Your task to perform on an android device: turn off priority inbox in the gmail app Image 0: 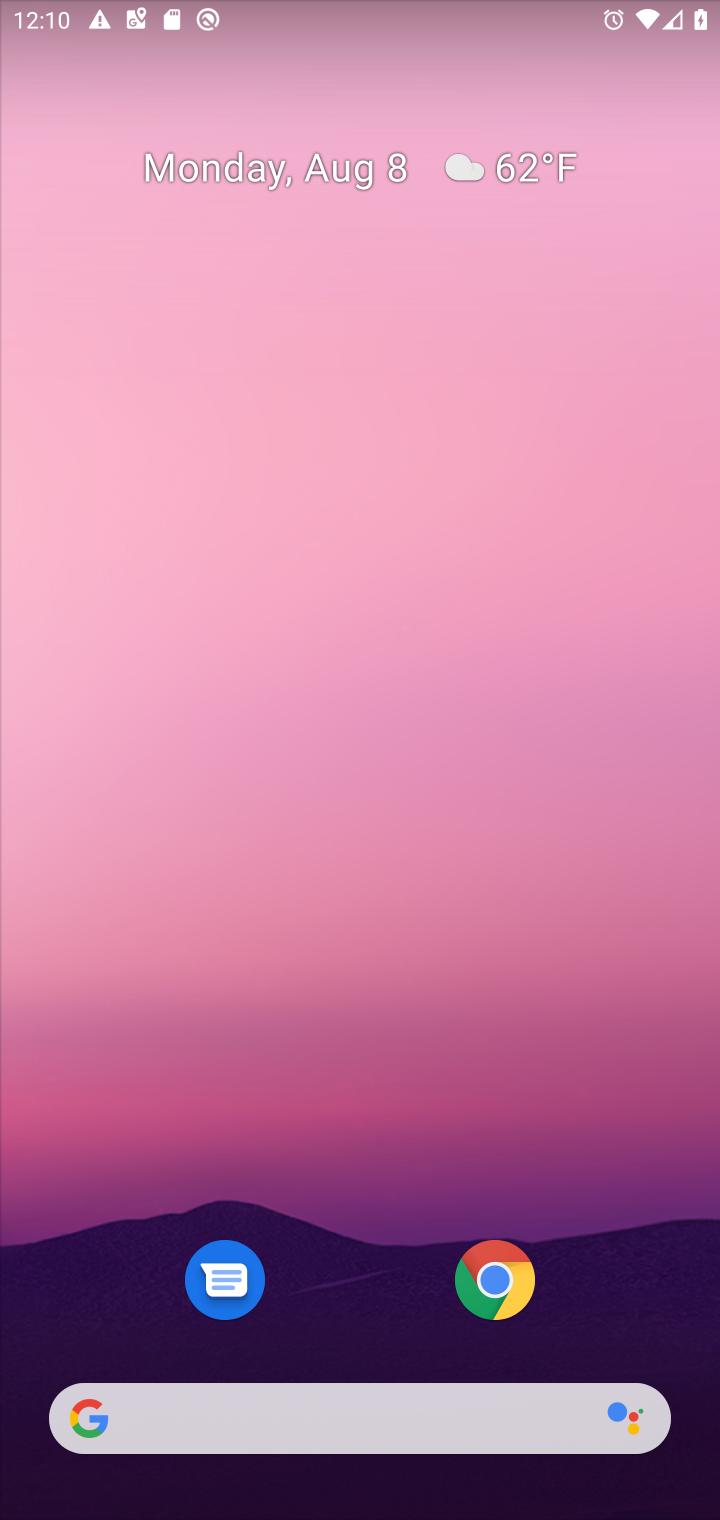
Step 0: drag from (379, 879) to (379, 195)
Your task to perform on an android device: turn off priority inbox in the gmail app Image 1: 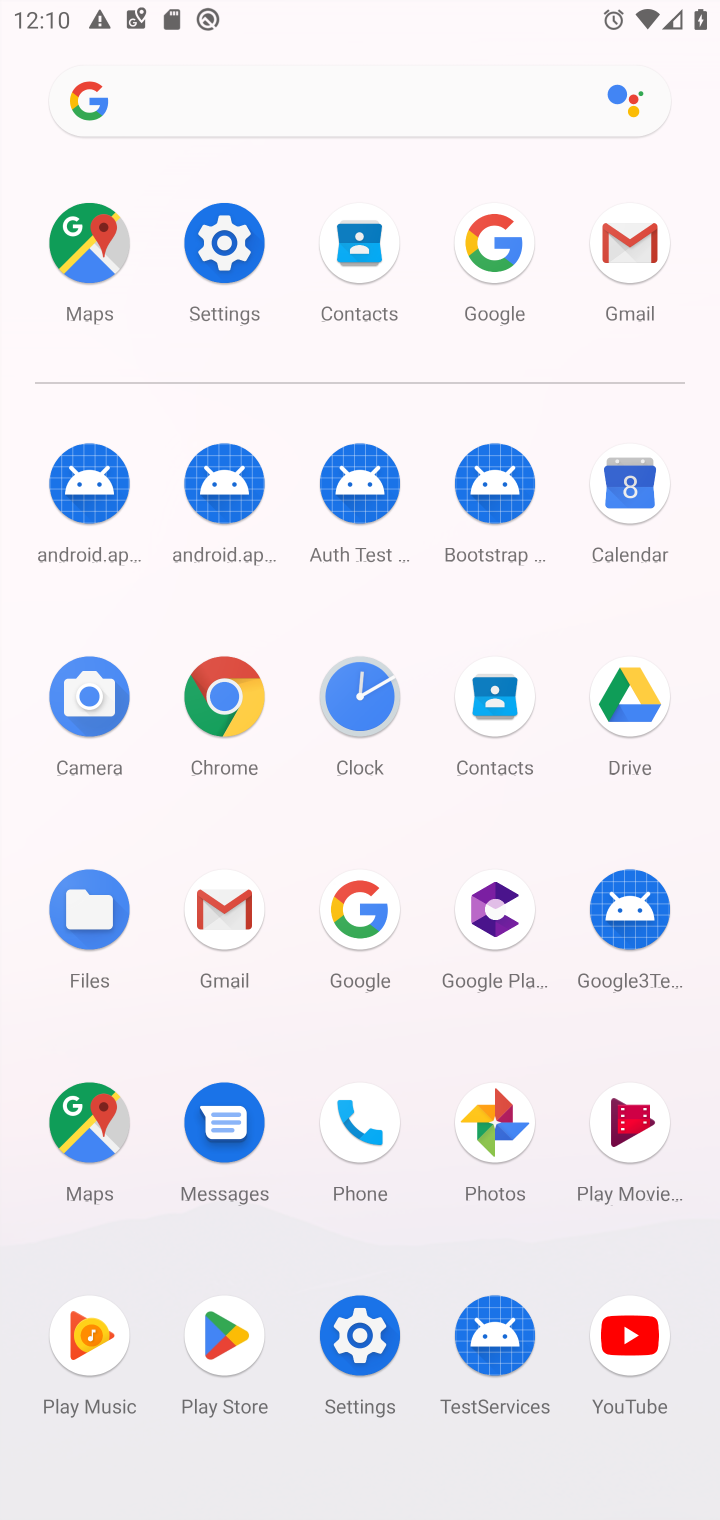
Step 1: click (233, 914)
Your task to perform on an android device: turn off priority inbox in the gmail app Image 2: 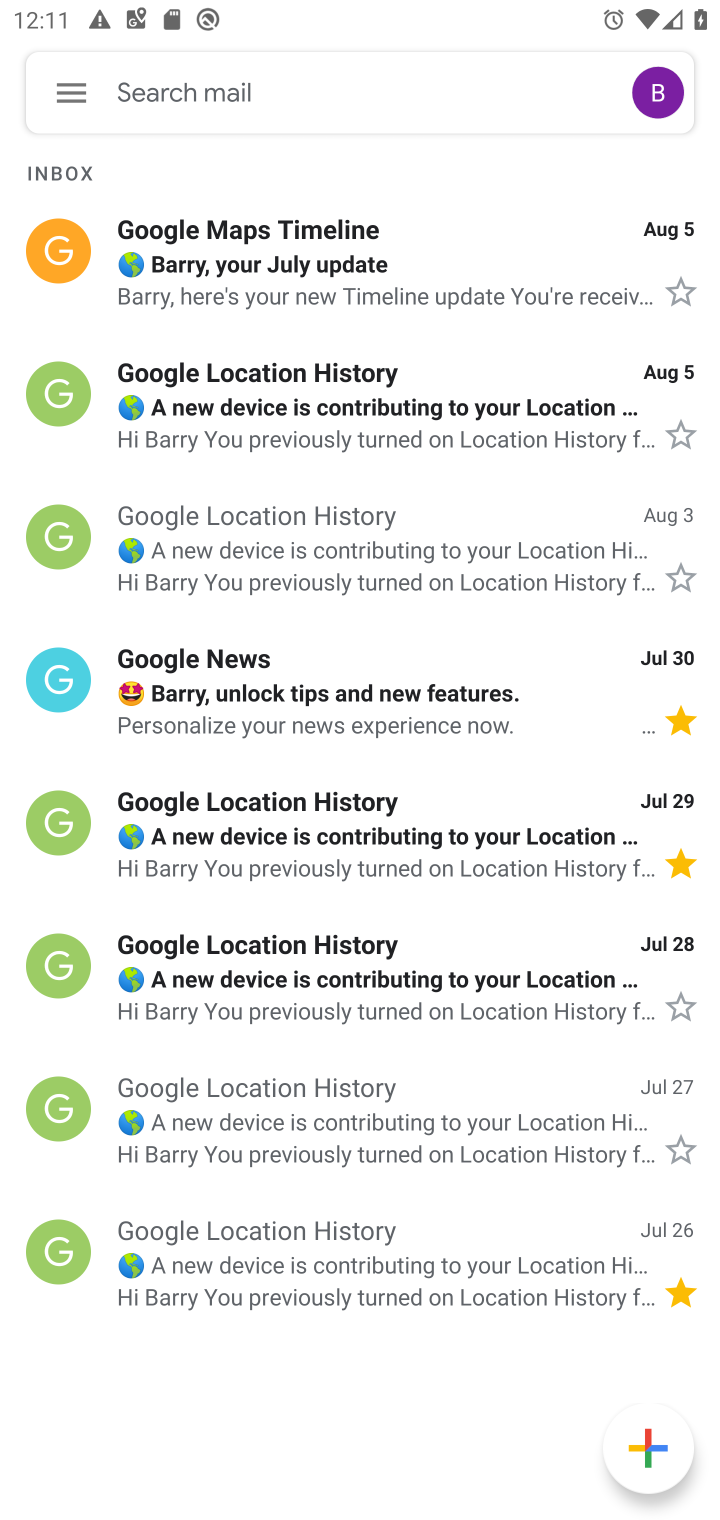
Step 2: click (74, 91)
Your task to perform on an android device: turn off priority inbox in the gmail app Image 3: 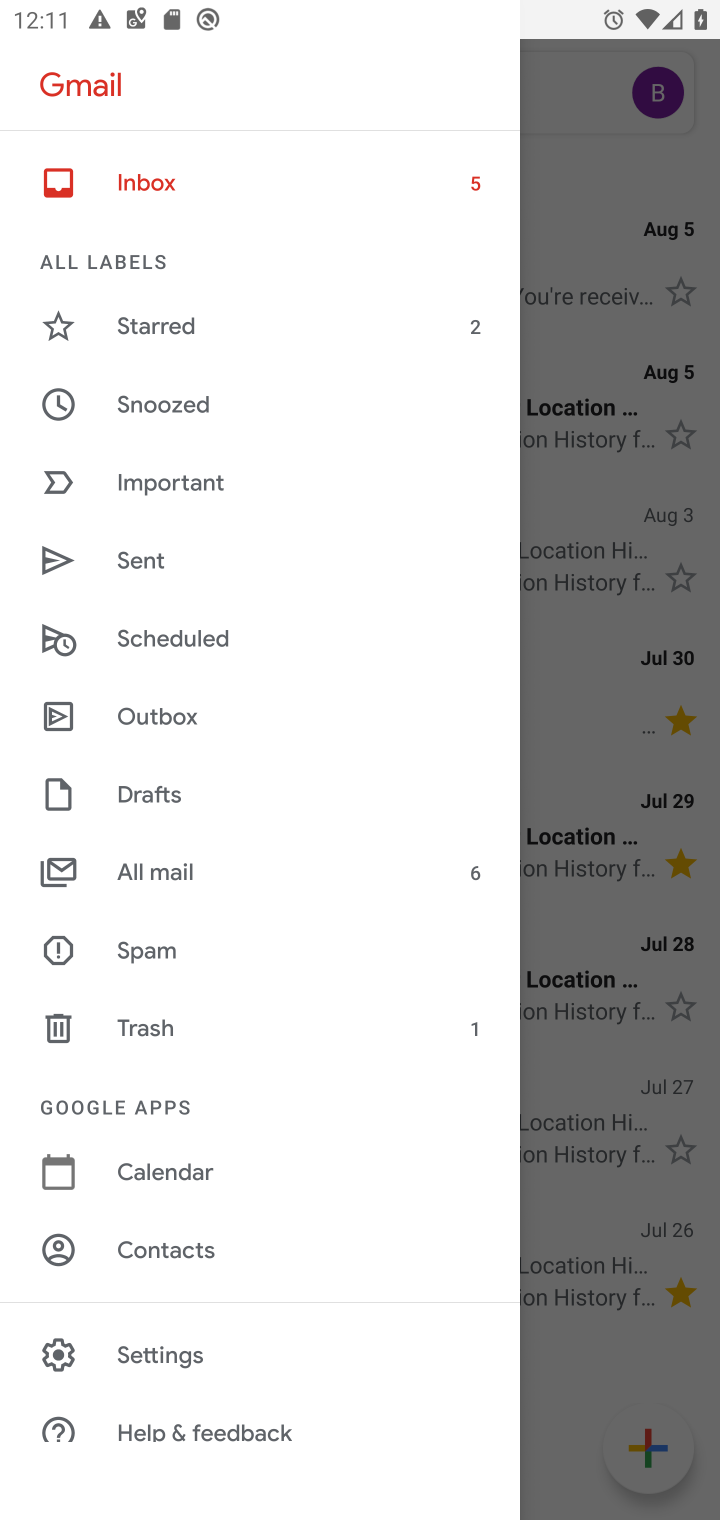
Step 3: click (160, 1350)
Your task to perform on an android device: turn off priority inbox in the gmail app Image 4: 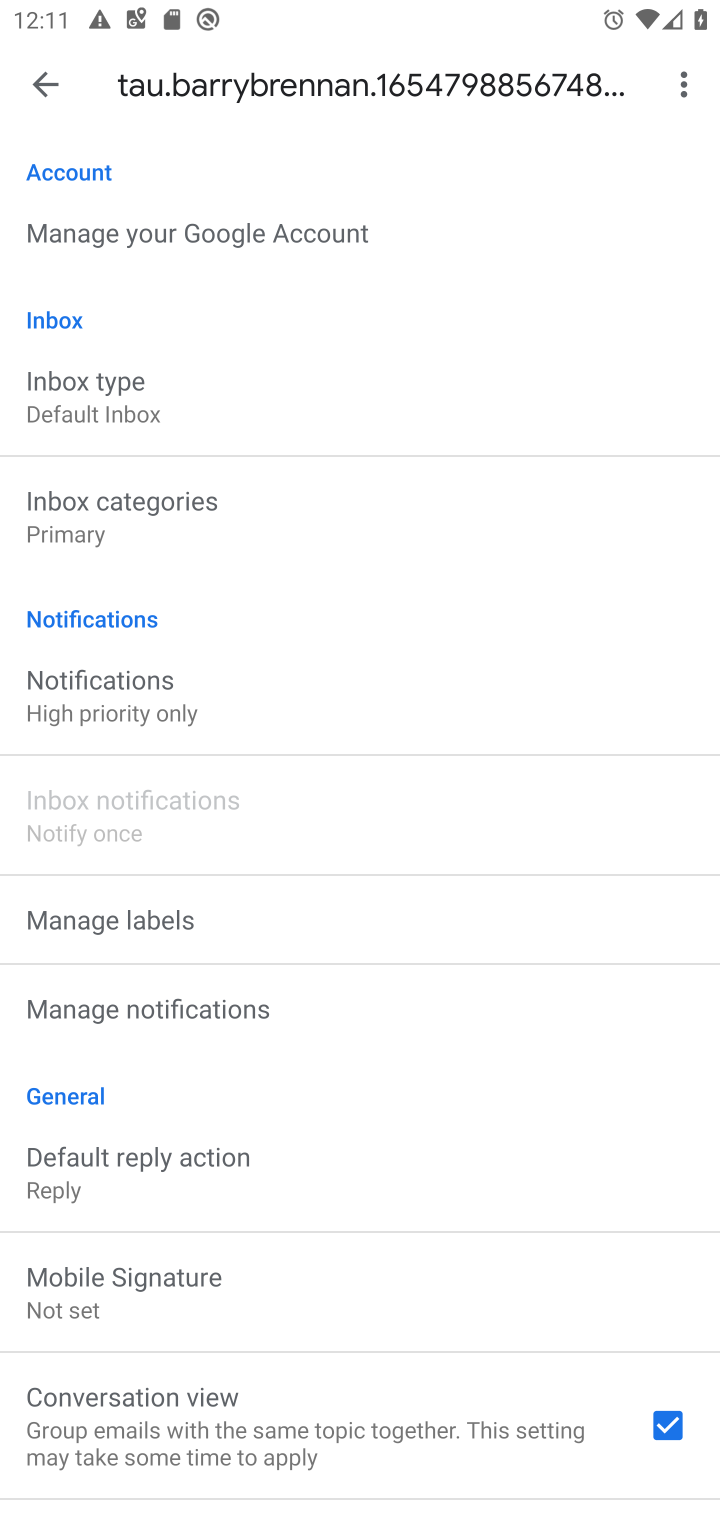
Step 4: click (91, 392)
Your task to perform on an android device: turn off priority inbox in the gmail app Image 5: 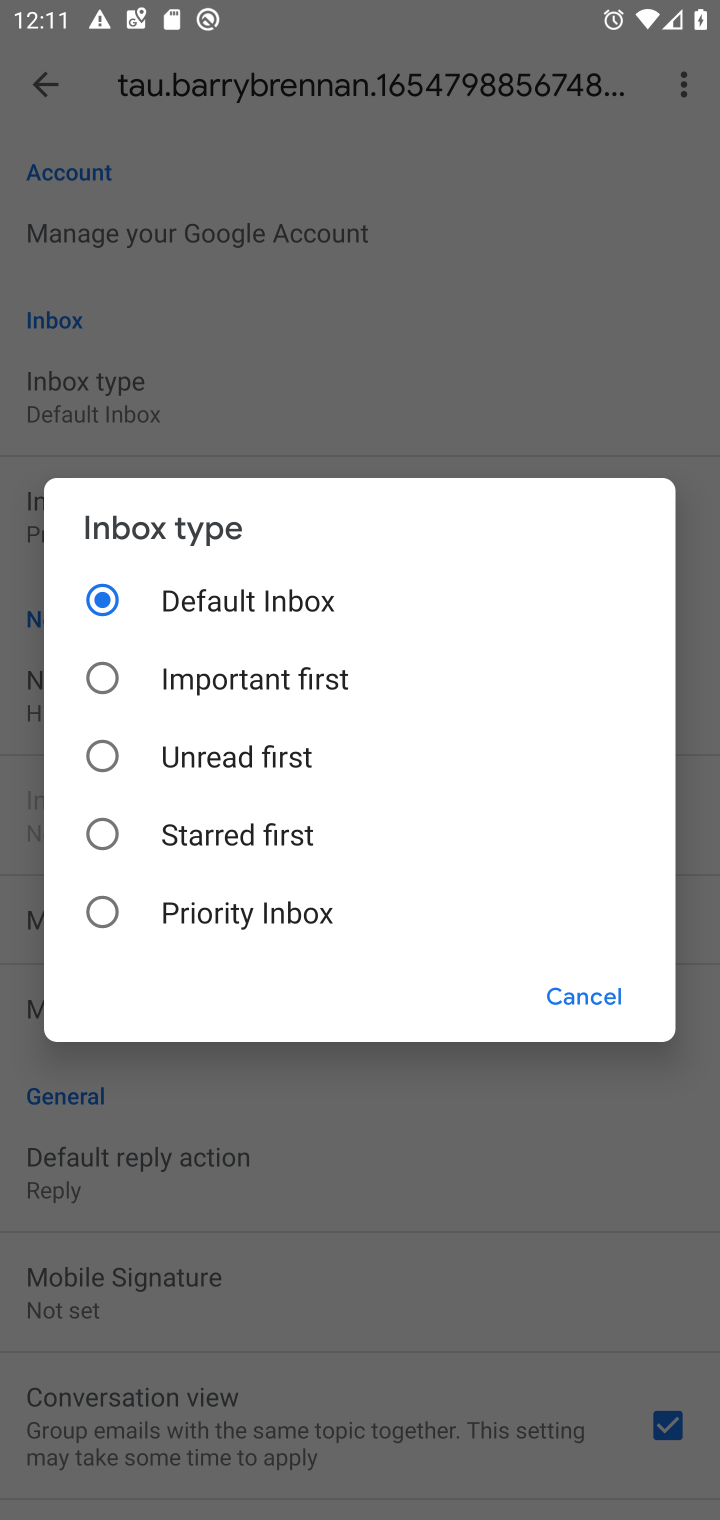
Step 5: task complete